Your task to perform on an android device: open app "Reddit" Image 0: 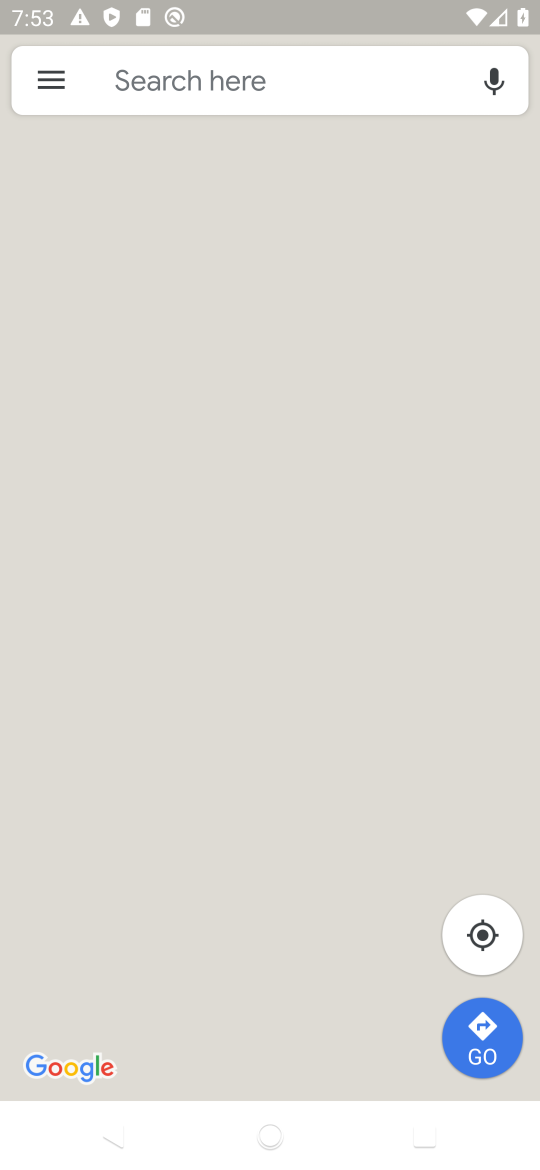
Step 0: press home button
Your task to perform on an android device: open app "Reddit" Image 1: 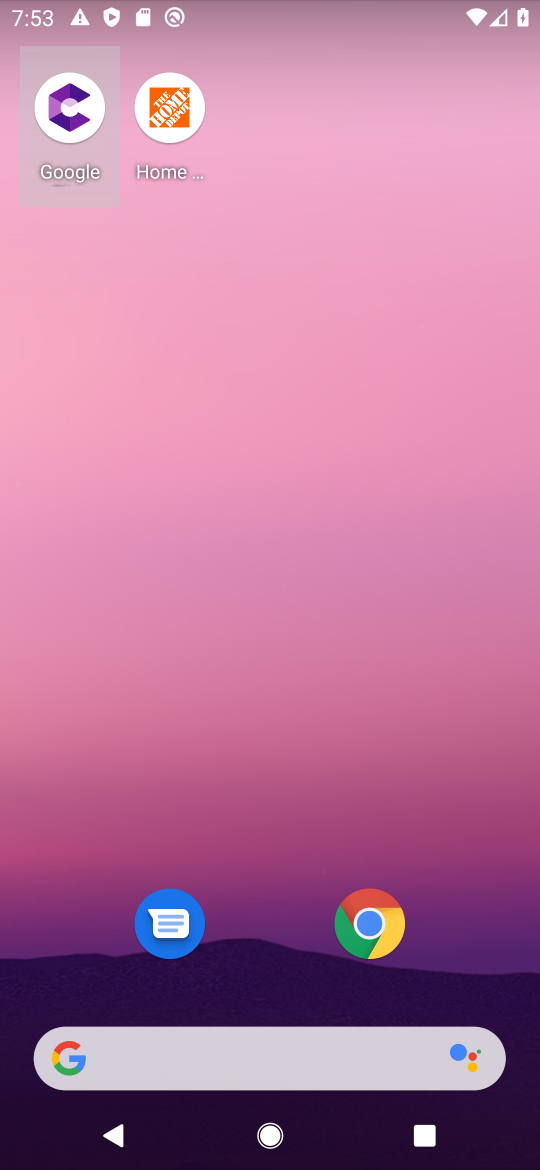
Step 1: drag from (469, 928) to (426, 211)
Your task to perform on an android device: open app "Reddit" Image 2: 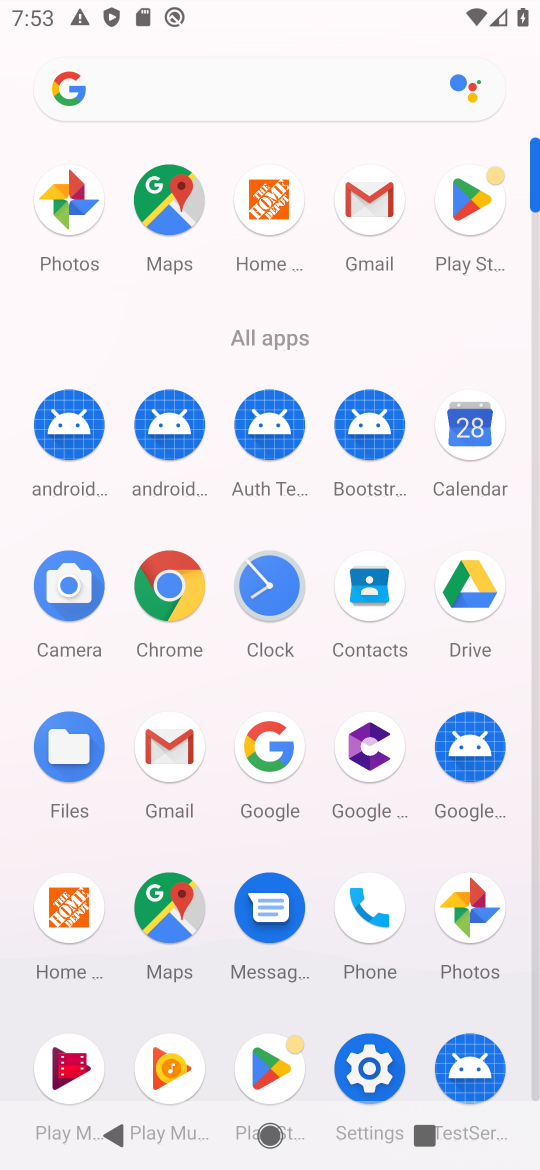
Step 2: click (482, 193)
Your task to perform on an android device: open app "Reddit" Image 3: 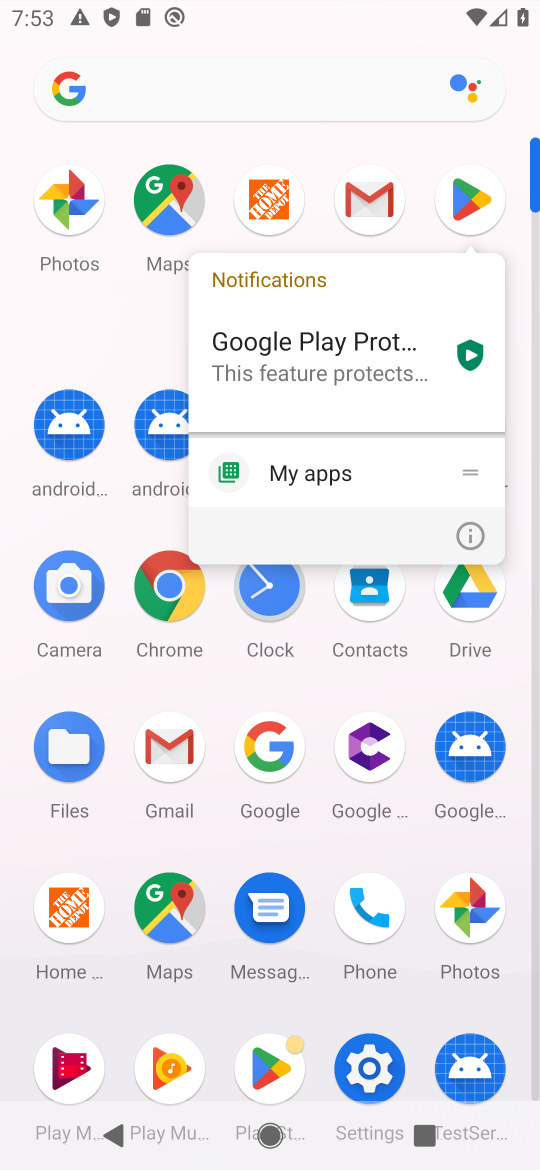
Step 3: click (450, 192)
Your task to perform on an android device: open app "Reddit" Image 4: 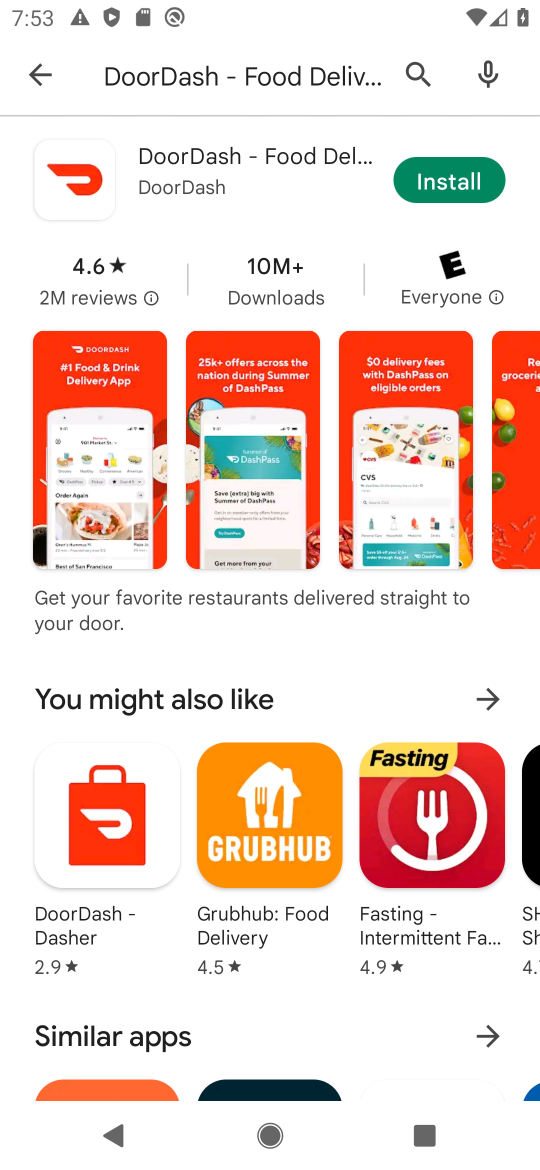
Step 4: click (261, 87)
Your task to perform on an android device: open app "Reddit" Image 5: 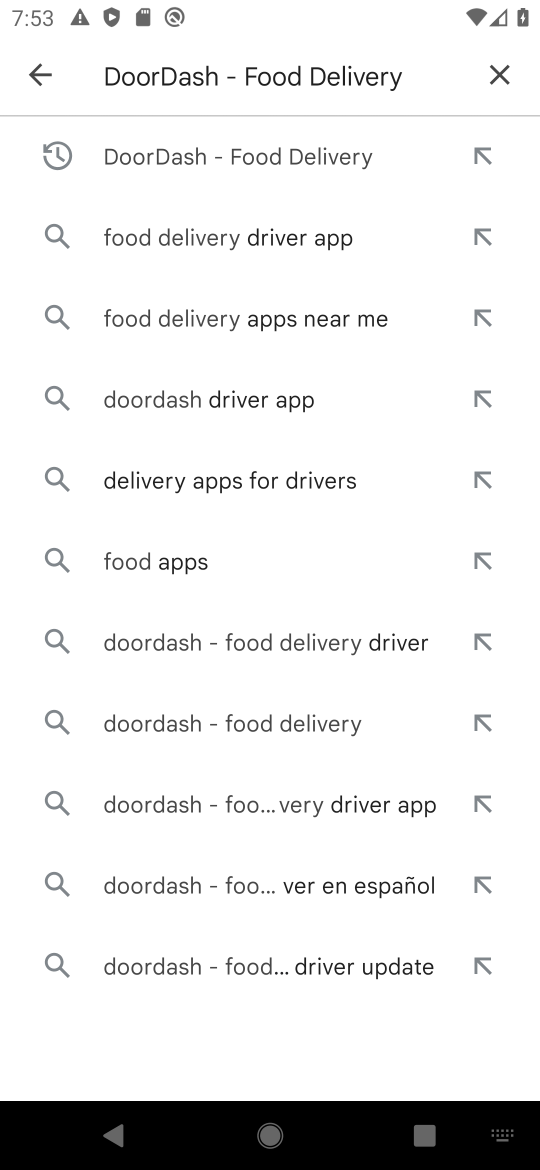
Step 5: click (516, 70)
Your task to perform on an android device: open app "Reddit" Image 6: 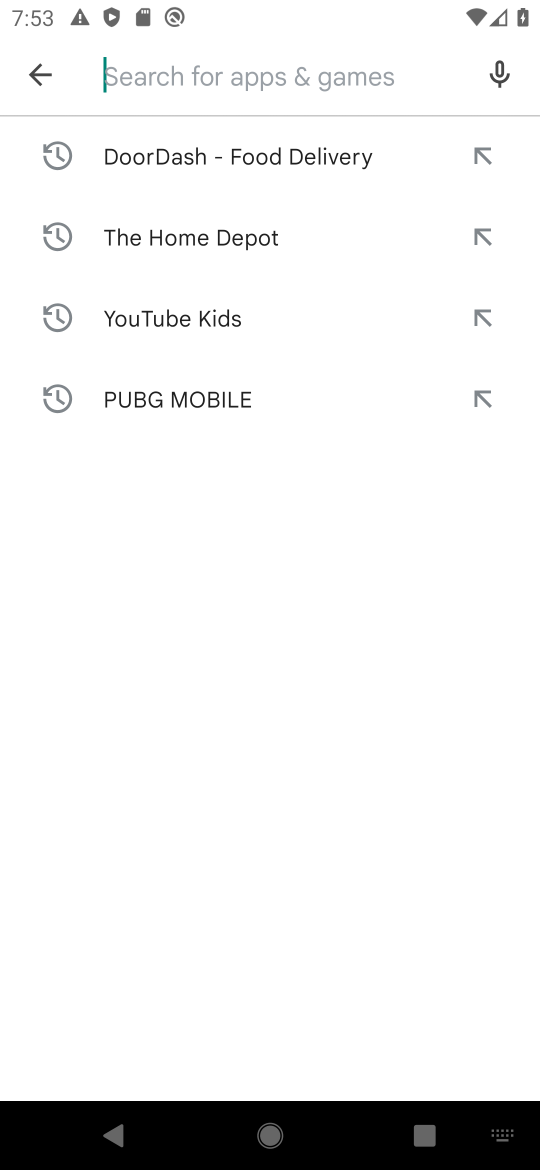
Step 6: type "Reddit"
Your task to perform on an android device: open app "Reddit" Image 7: 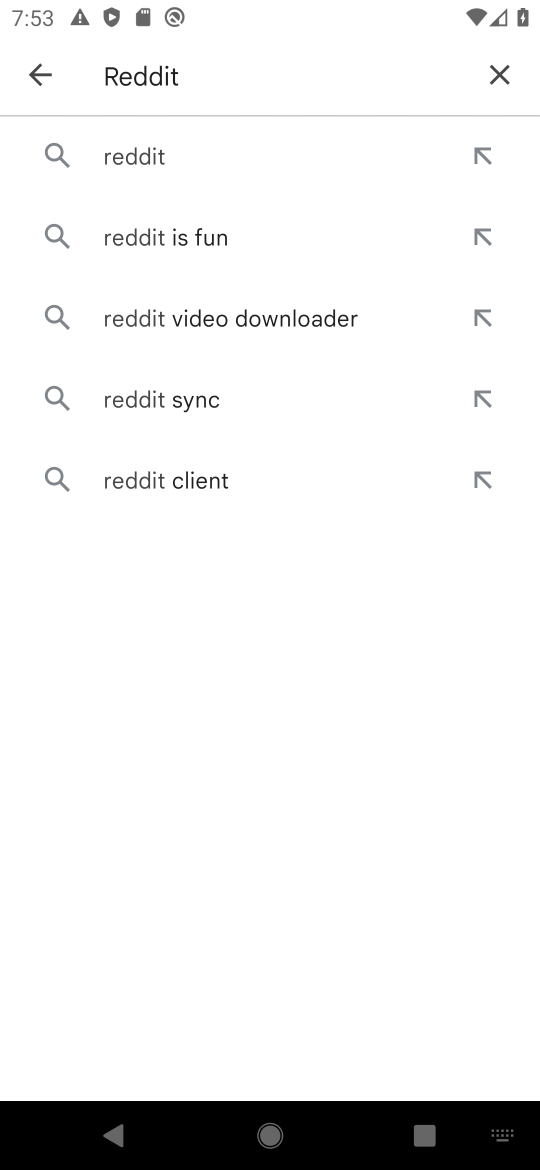
Step 7: press enter
Your task to perform on an android device: open app "Reddit" Image 8: 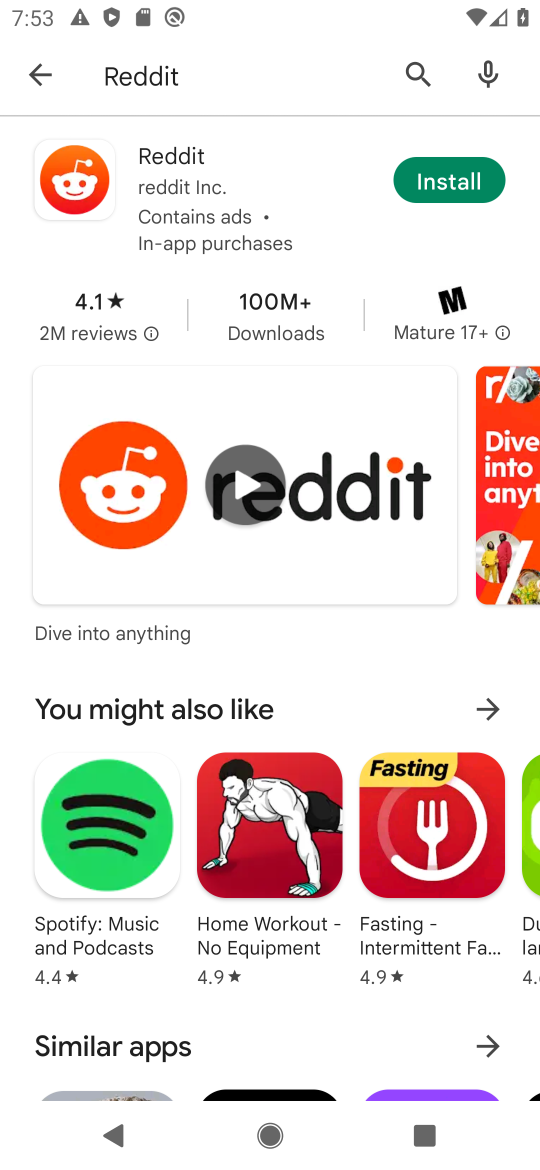
Step 8: task complete